Your task to perform on an android device: Play the last video I watched on Youtube Image 0: 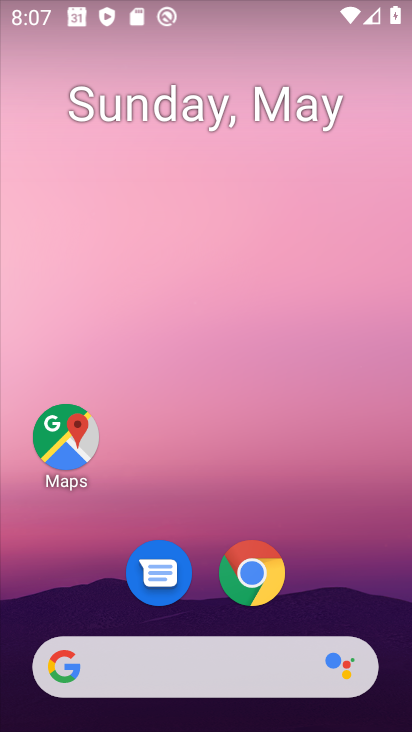
Step 0: drag from (326, 599) to (285, 254)
Your task to perform on an android device: Play the last video I watched on Youtube Image 1: 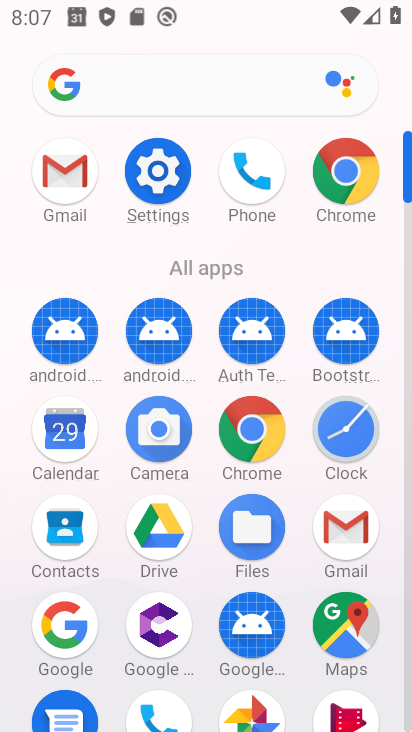
Step 1: click (410, 709)
Your task to perform on an android device: Play the last video I watched on Youtube Image 2: 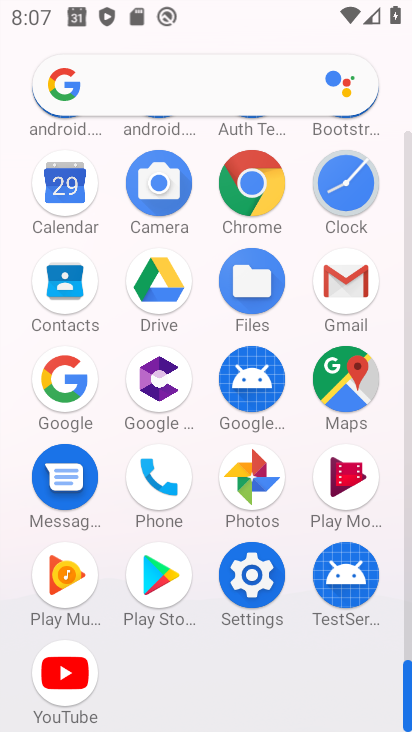
Step 2: click (53, 668)
Your task to perform on an android device: Play the last video I watched on Youtube Image 3: 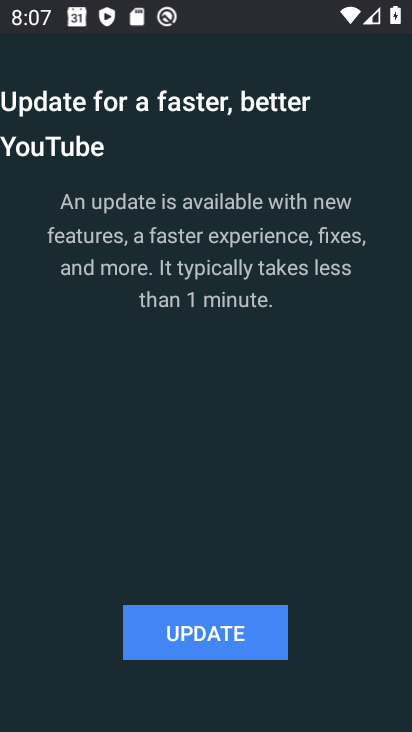
Step 3: click (271, 645)
Your task to perform on an android device: Play the last video I watched on Youtube Image 4: 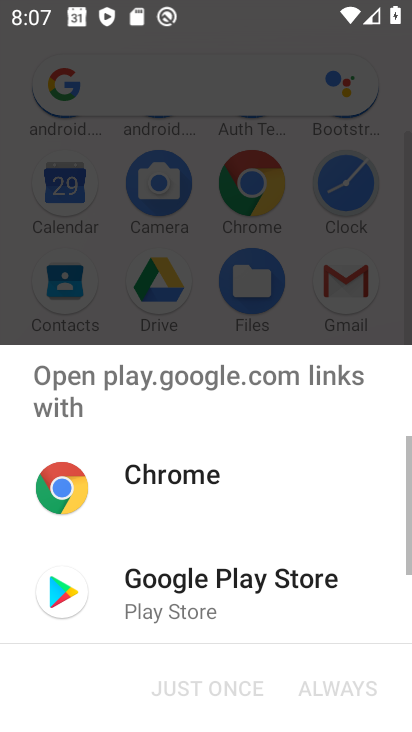
Step 4: click (310, 600)
Your task to perform on an android device: Play the last video I watched on Youtube Image 5: 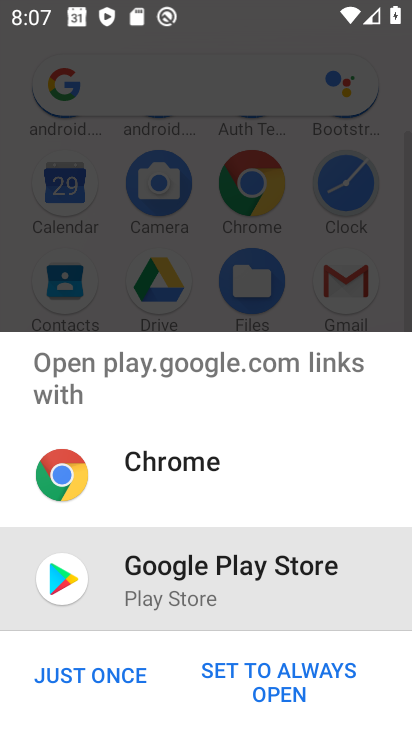
Step 5: click (79, 683)
Your task to perform on an android device: Play the last video I watched on Youtube Image 6: 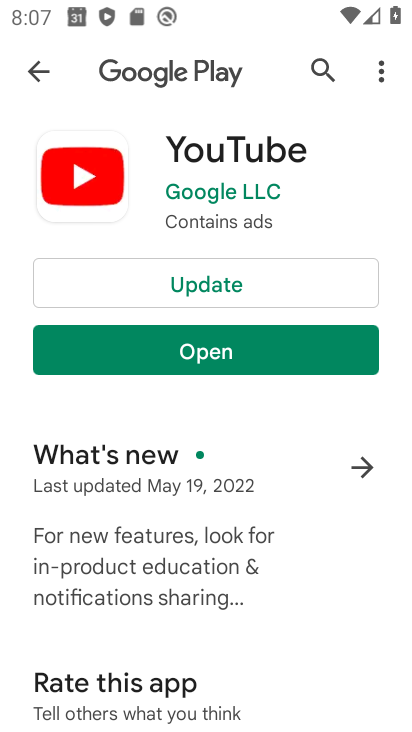
Step 6: click (256, 292)
Your task to perform on an android device: Play the last video I watched on Youtube Image 7: 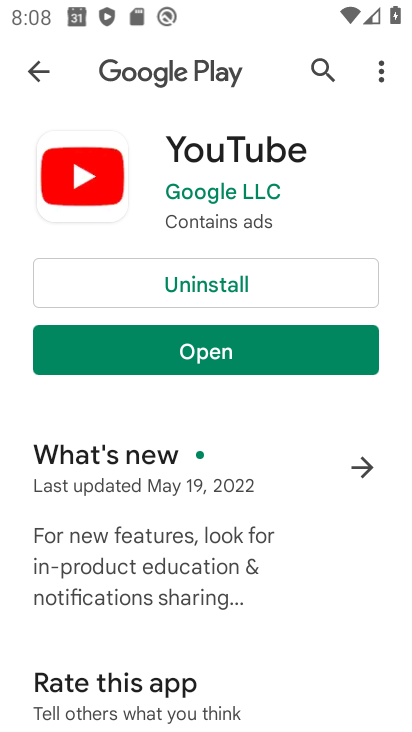
Step 7: click (327, 349)
Your task to perform on an android device: Play the last video I watched on Youtube Image 8: 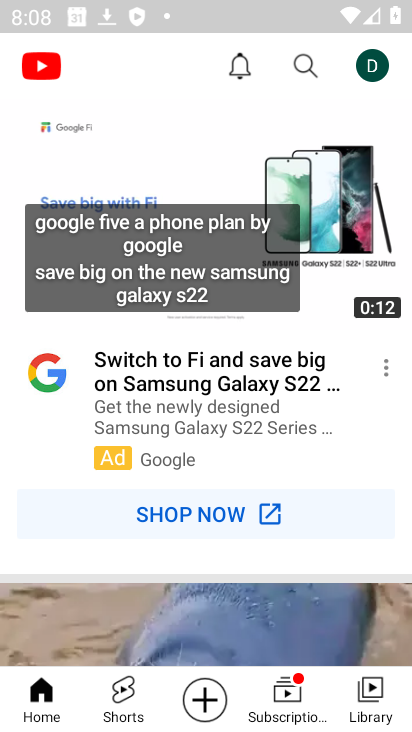
Step 8: click (386, 707)
Your task to perform on an android device: Play the last video I watched on Youtube Image 9: 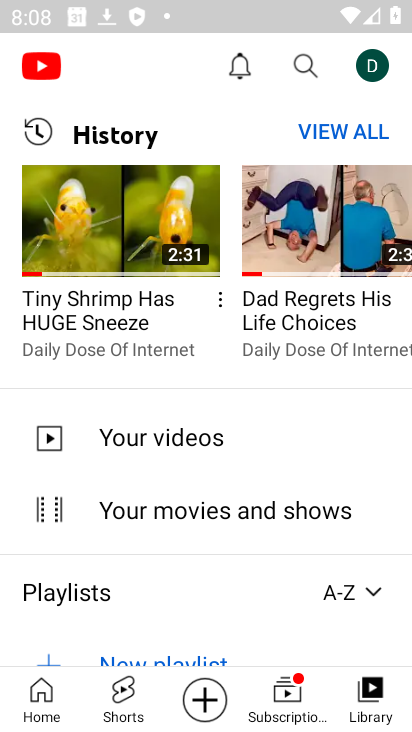
Step 9: click (99, 218)
Your task to perform on an android device: Play the last video I watched on Youtube Image 10: 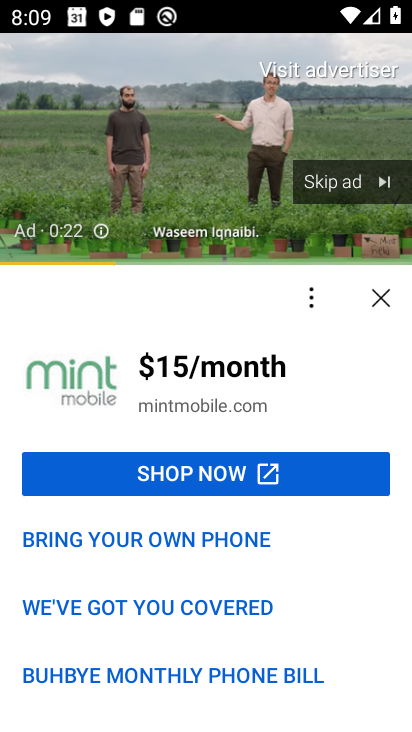
Step 10: task complete